Your task to perform on an android device: Open internet settings Image 0: 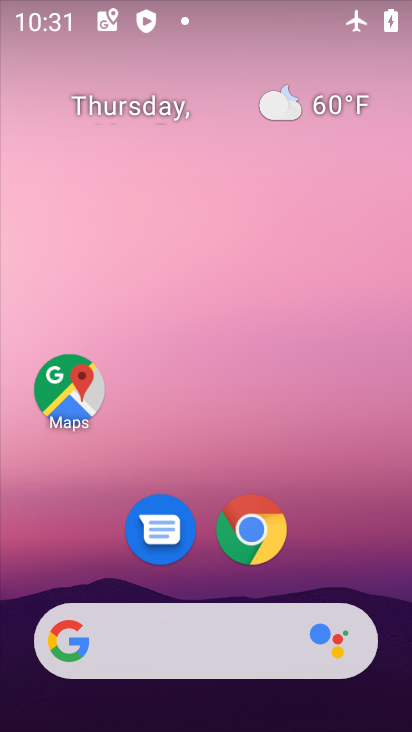
Step 0: drag from (379, 624) to (186, 107)
Your task to perform on an android device: Open internet settings Image 1: 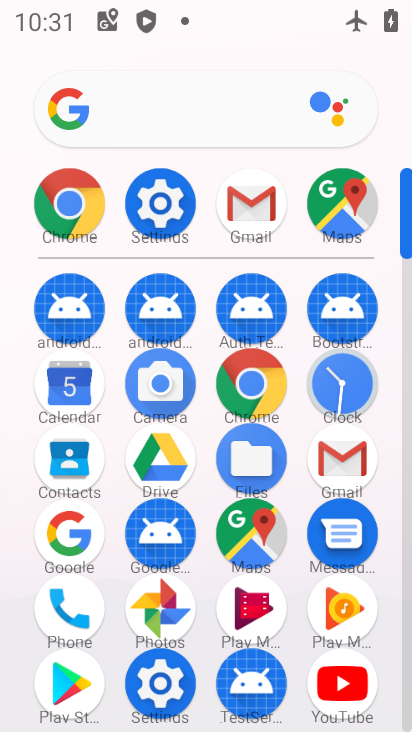
Step 1: click (171, 197)
Your task to perform on an android device: Open internet settings Image 2: 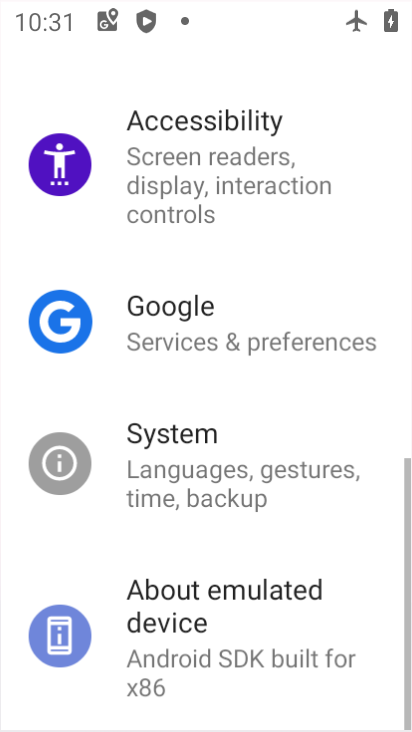
Step 2: click (170, 198)
Your task to perform on an android device: Open internet settings Image 3: 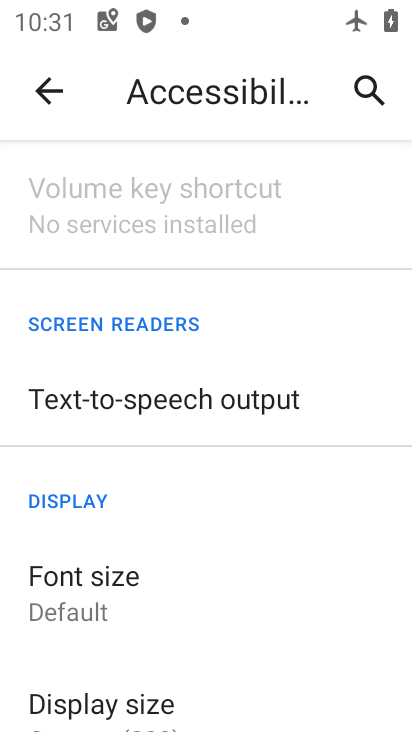
Step 3: click (41, 77)
Your task to perform on an android device: Open internet settings Image 4: 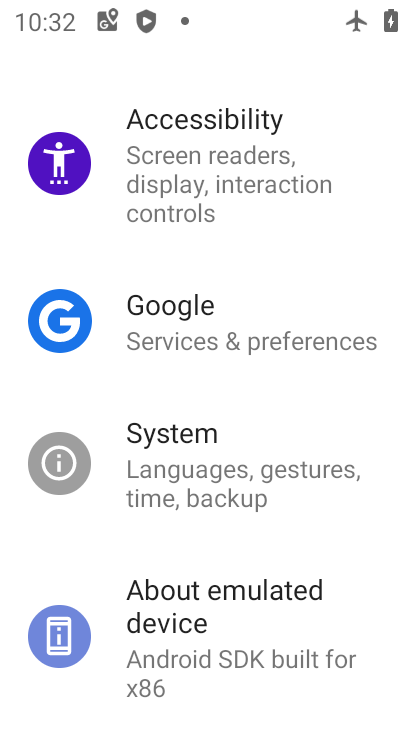
Step 4: drag from (312, 539) to (247, 178)
Your task to perform on an android device: Open internet settings Image 5: 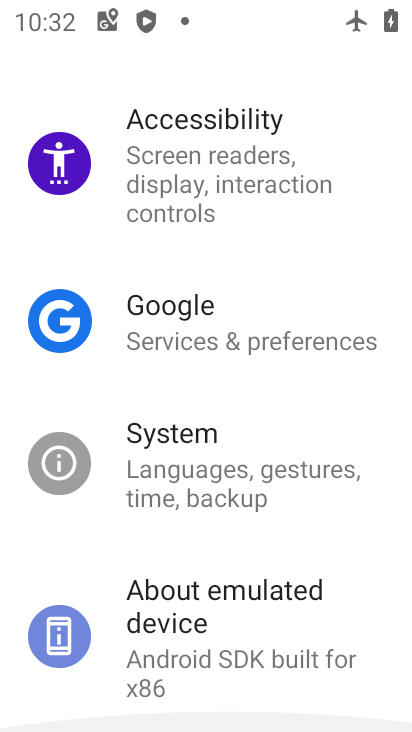
Step 5: drag from (304, 401) to (293, 94)
Your task to perform on an android device: Open internet settings Image 6: 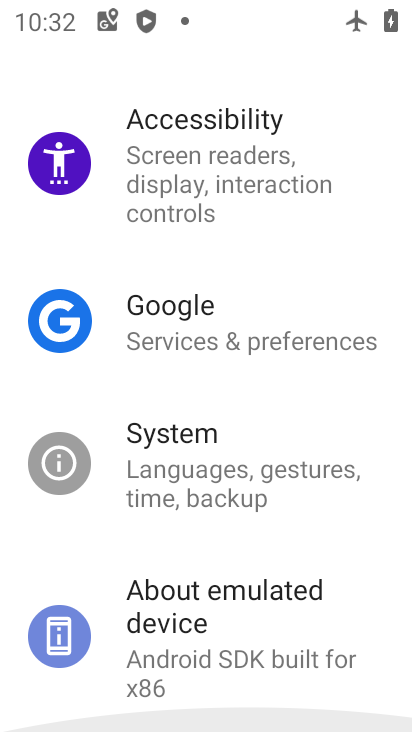
Step 6: drag from (288, 260) to (283, 585)
Your task to perform on an android device: Open internet settings Image 7: 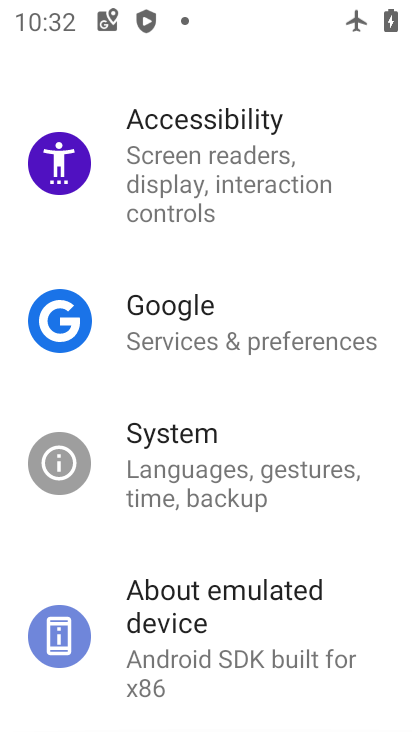
Step 7: drag from (117, 287) to (241, 486)
Your task to perform on an android device: Open internet settings Image 8: 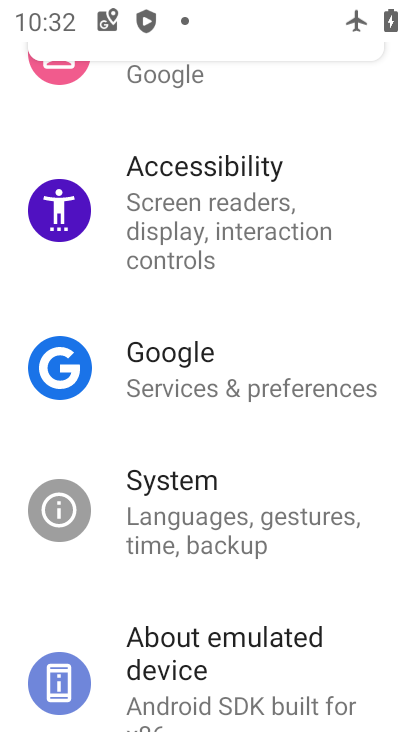
Step 8: drag from (219, 197) to (267, 529)
Your task to perform on an android device: Open internet settings Image 9: 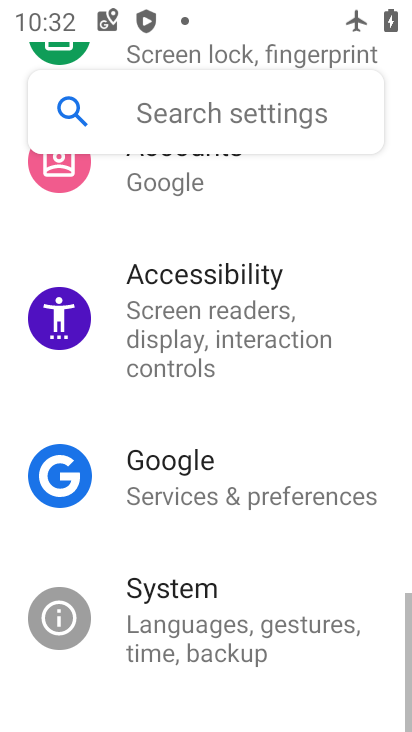
Step 9: drag from (198, 230) to (269, 544)
Your task to perform on an android device: Open internet settings Image 10: 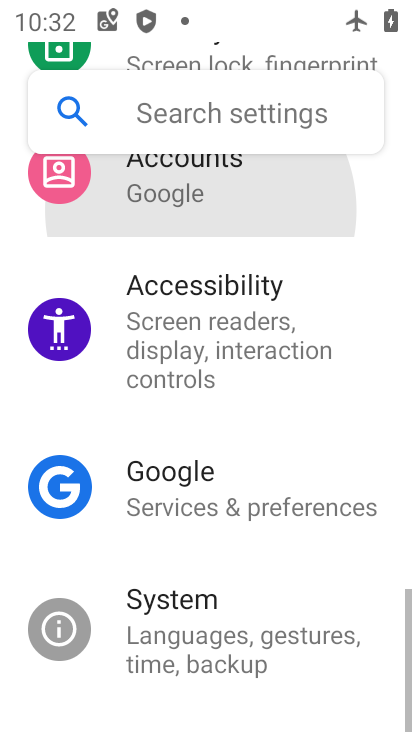
Step 10: drag from (225, 203) to (213, 565)
Your task to perform on an android device: Open internet settings Image 11: 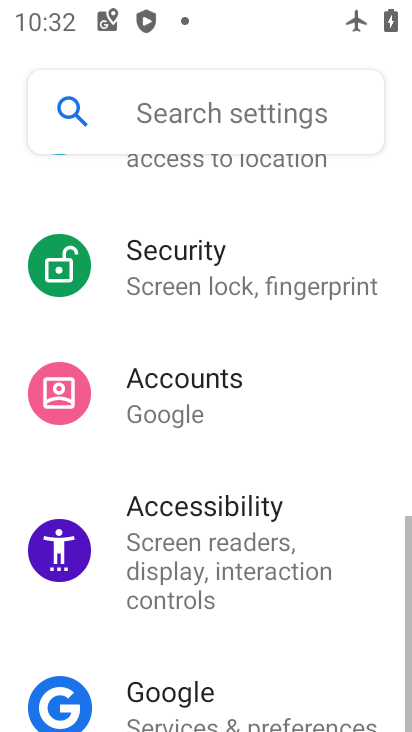
Step 11: drag from (224, 234) to (265, 651)
Your task to perform on an android device: Open internet settings Image 12: 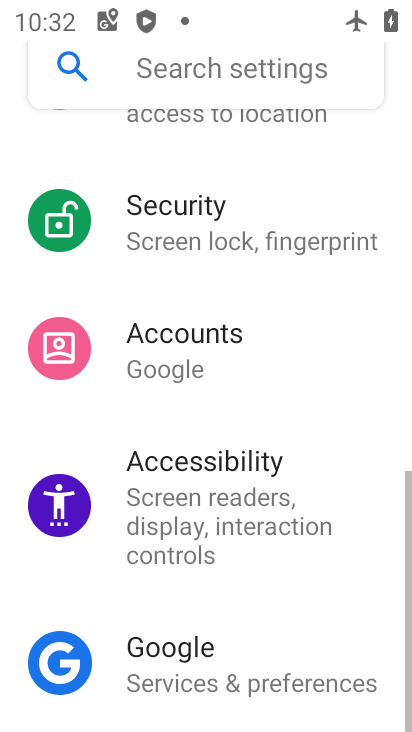
Step 12: drag from (151, 267) to (270, 640)
Your task to perform on an android device: Open internet settings Image 13: 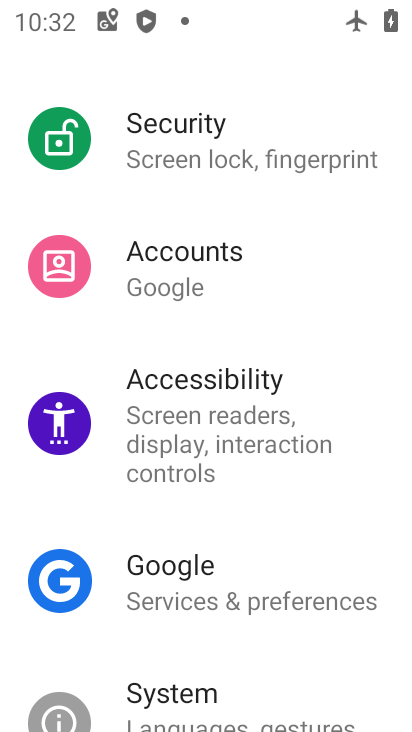
Step 13: drag from (140, 229) to (249, 612)
Your task to perform on an android device: Open internet settings Image 14: 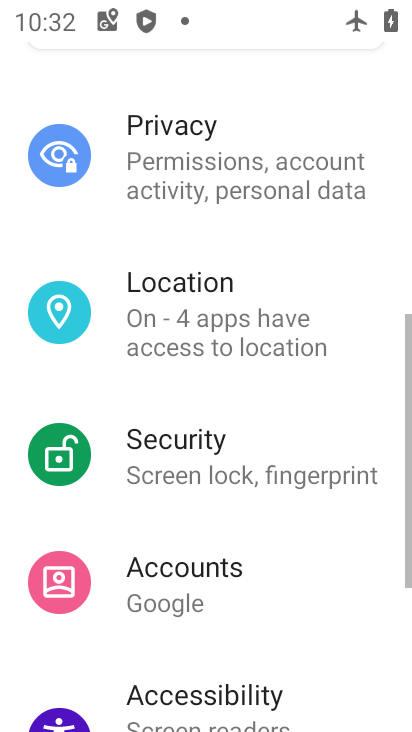
Step 14: drag from (231, 265) to (312, 544)
Your task to perform on an android device: Open internet settings Image 15: 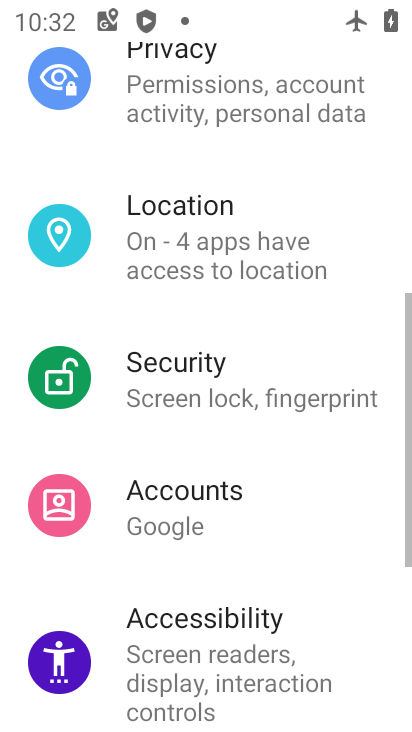
Step 15: drag from (304, 220) to (317, 698)
Your task to perform on an android device: Open internet settings Image 16: 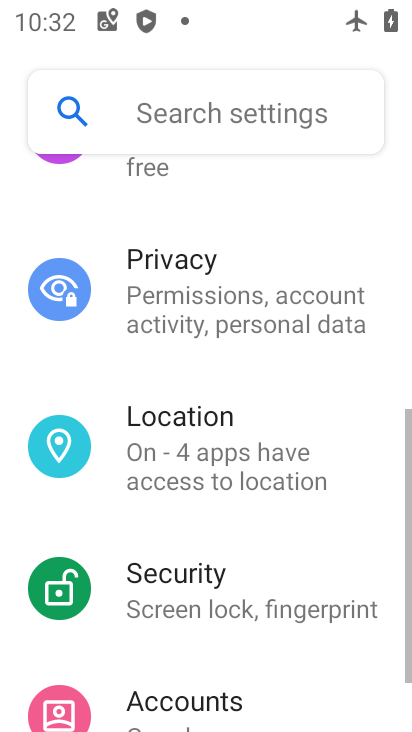
Step 16: drag from (186, 345) to (265, 561)
Your task to perform on an android device: Open internet settings Image 17: 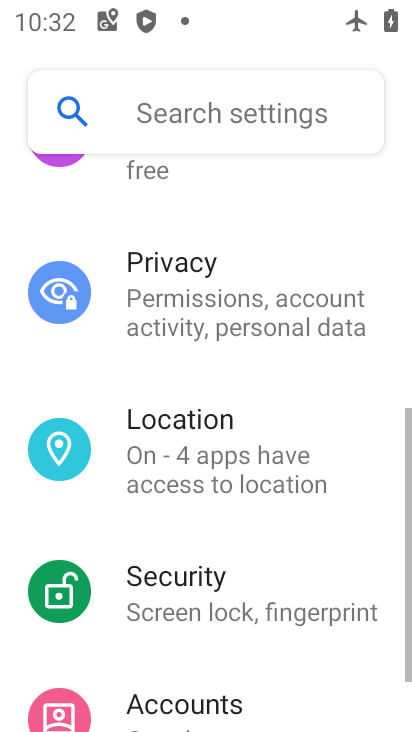
Step 17: drag from (185, 137) to (325, 509)
Your task to perform on an android device: Open internet settings Image 18: 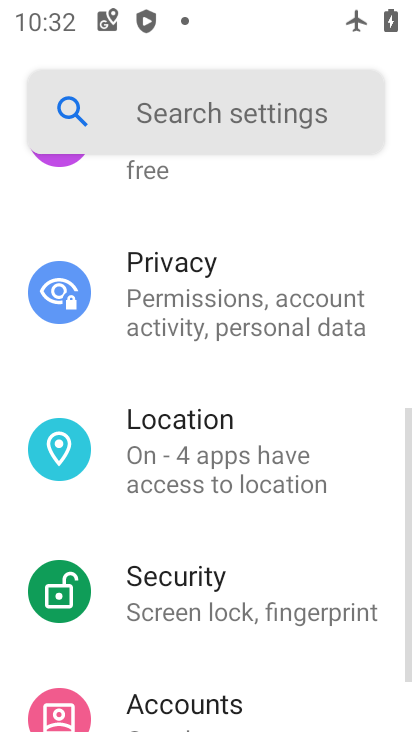
Step 18: drag from (274, 190) to (326, 563)
Your task to perform on an android device: Open internet settings Image 19: 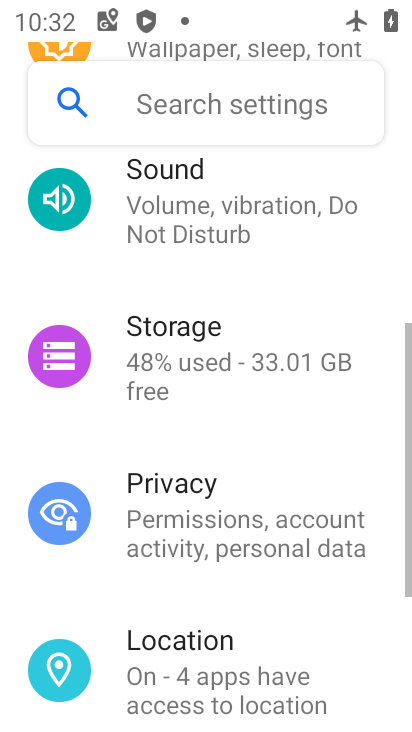
Step 19: drag from (225, 267) to (275, 545)
Your task to perform on an android device: Open internet settings Image 20: 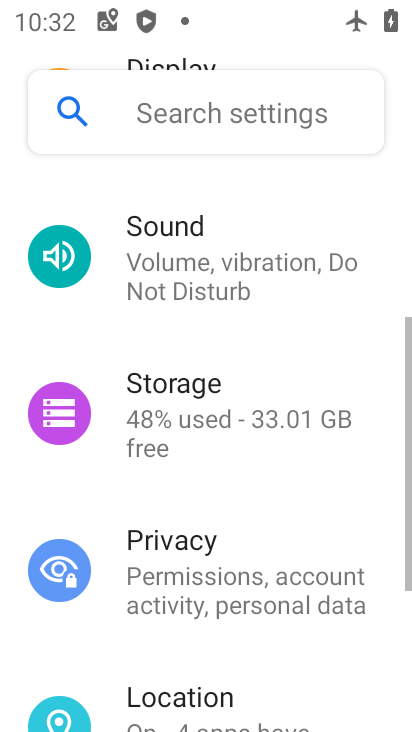
Step 20: drag from (249, 286) to (234, 558)
Your task to perform on an android device: Open internet settings Image 21: 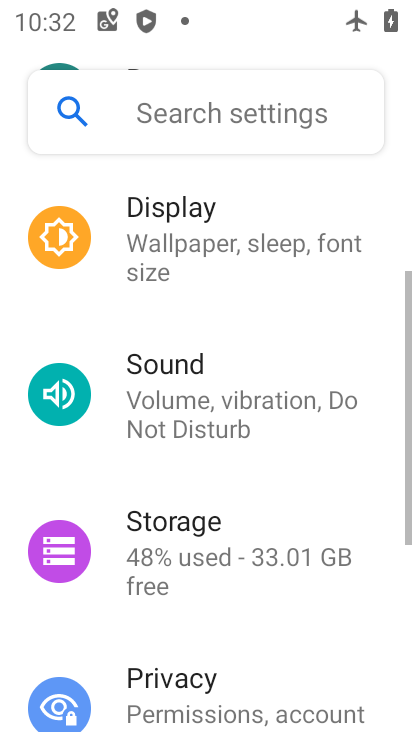
Step 21: drag from (231, 283) to (256, 514)
Your task to perform on an android device: Open internet settings Image 22: 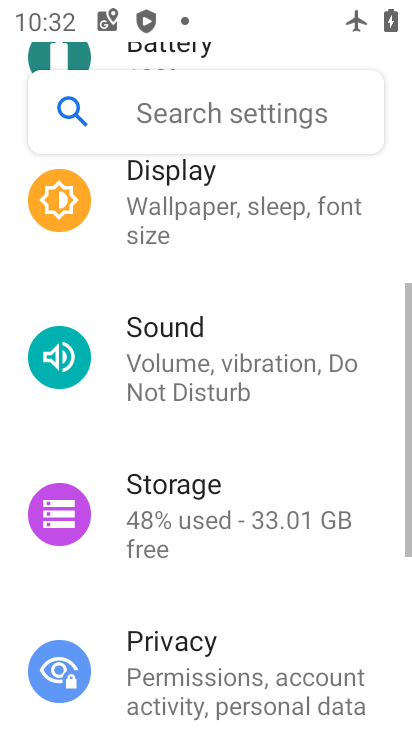
Step 22: drag from (207, 423) to (244, 506)
Your task to perform on an android device: Open internet settings Image 23: 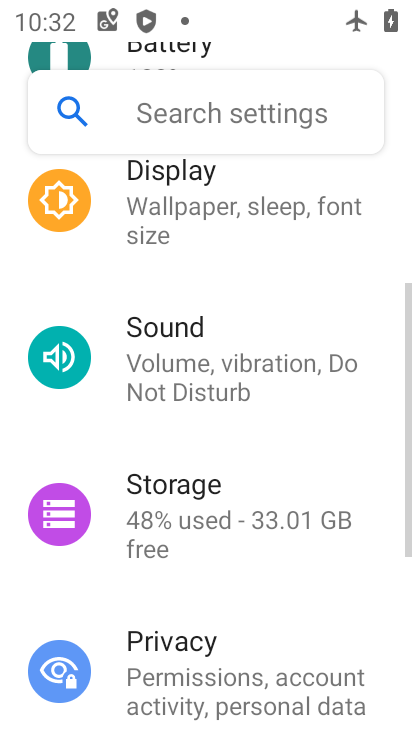
Step 23: drag from (82, 277) to (207, 629)
Your task to perform on an android device: Open internet settings Image 24: 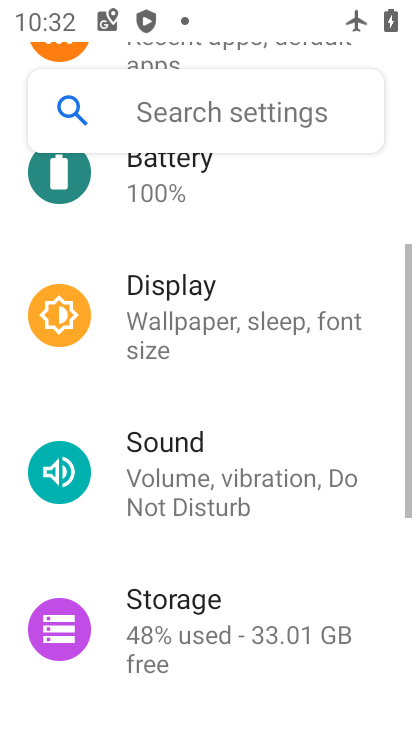
Step 24: drag from (196, 327) to (245, 608)
Your task to perform on an android device: Open internet settings Image 25: 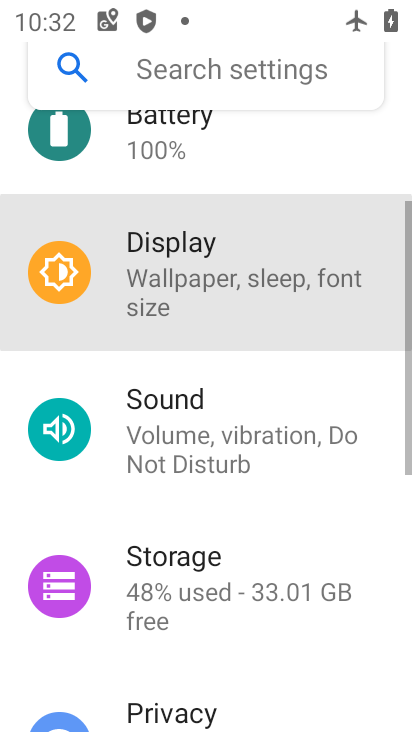
Step 25: drag from (189, 336) to (336, 662)
Your task to perform on an android device: Open internet settings Image 26: 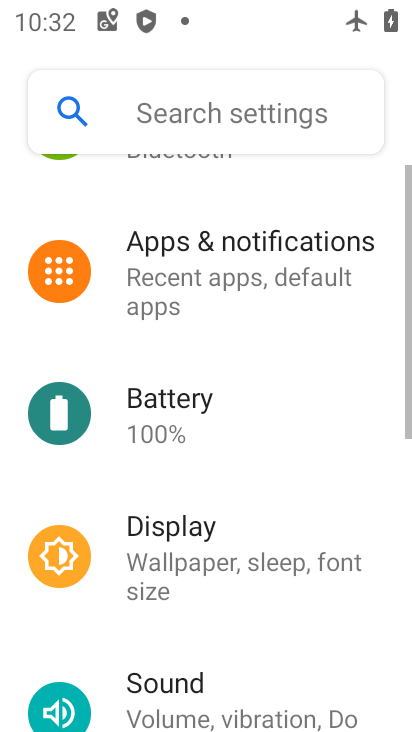
Step 26: drag from (289, 296) to (356, 658)
Your task to perform on an android device: Open internet settings Image 27: 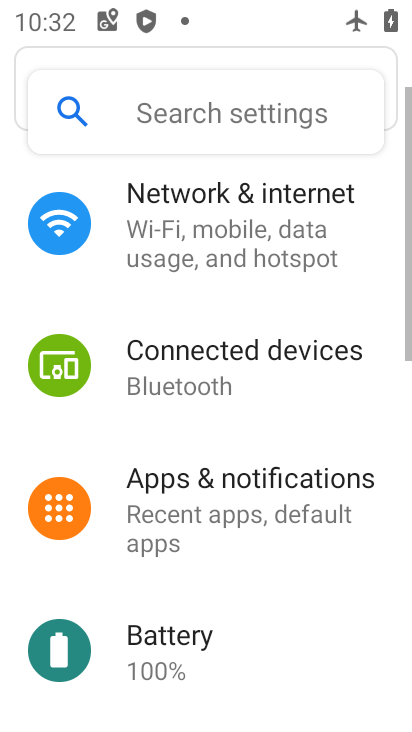
Step 27: drag from (265, 306) to (296, 532)
Your task to perform on an android device: Open internet settings Image 28: 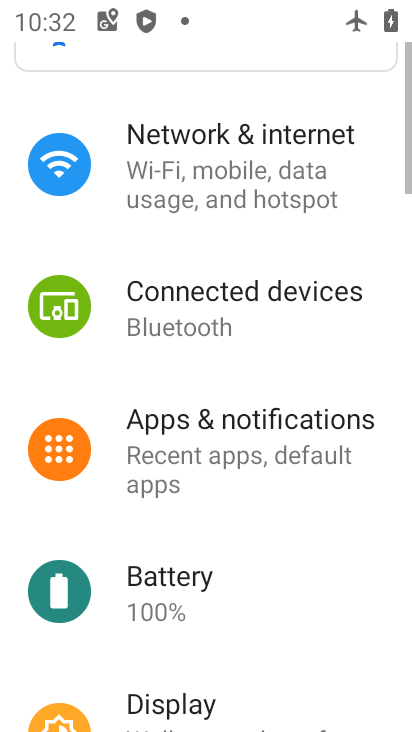
Step 28: drag from (242, 361) to (282, 588)
Your task to perform on an android device: Open internet settings Image 29: 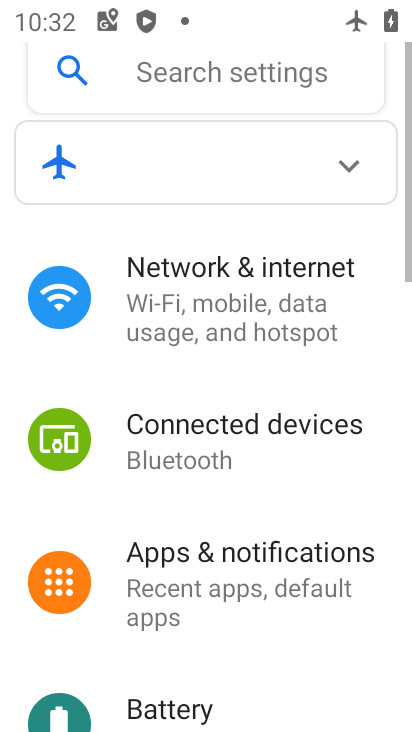
Step 29: drag from (220, 342) to (337, 648)
Your task to perform on an android device: Open internet settings Image 30: 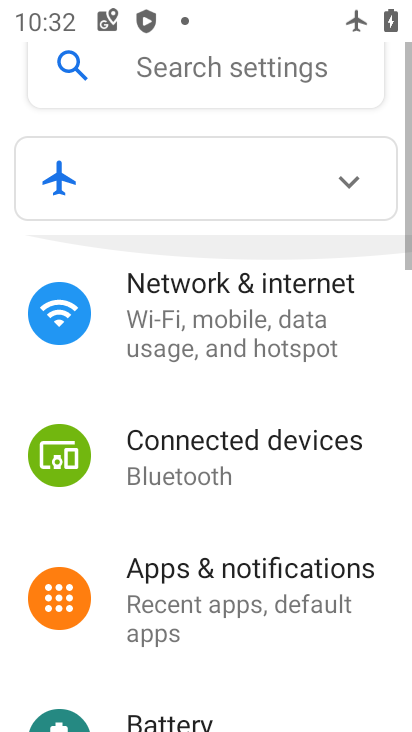
Step 30: drag from (263, 296) to (331, 657)
Your task to perform on an android device: Open internet settings Image 31: 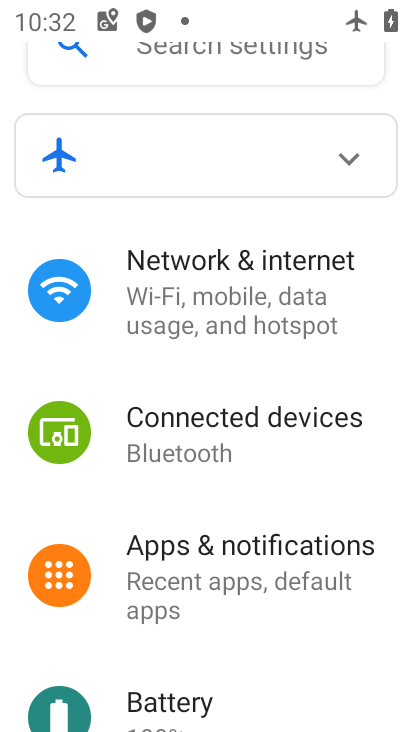
Step 31: click (253, 300)
Your task to perform on an android device: Open internet settings Image 32: 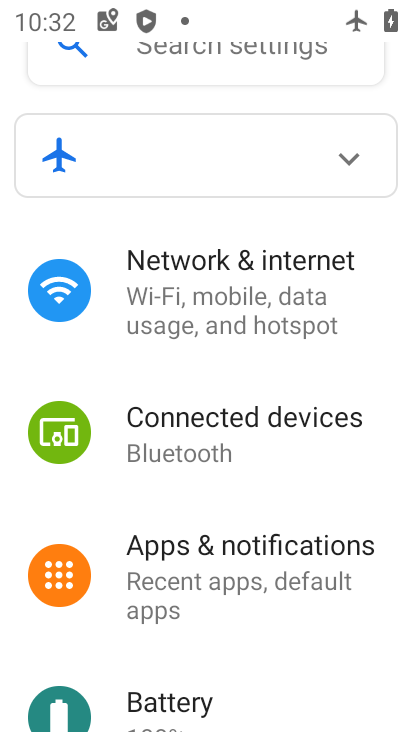
Step 32: click (253, 300)
Your task to perform on an android device: Open internet settings Image 33: 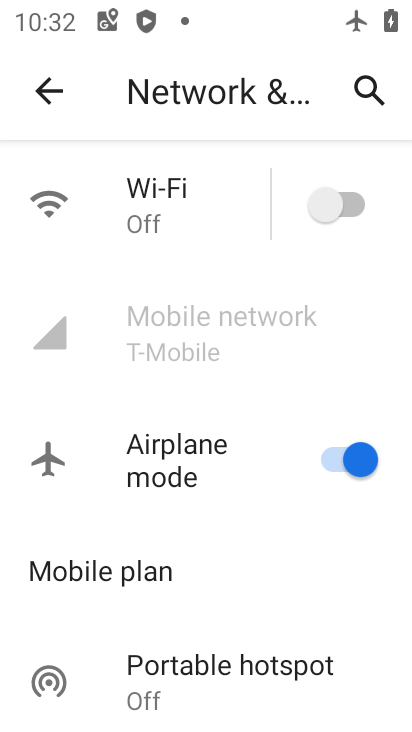
Step 33: click (325, 215)
Your task to perform on an android device: Open internet settings Image 34: 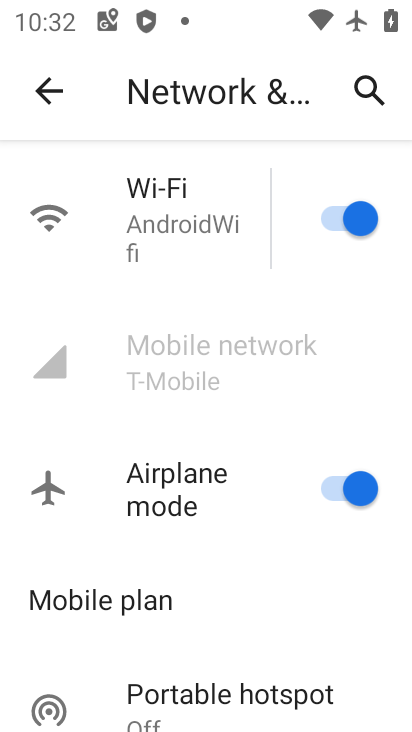
Step 34: task complete